Your task to perform on an android device: Go to CNN.com Image 0: 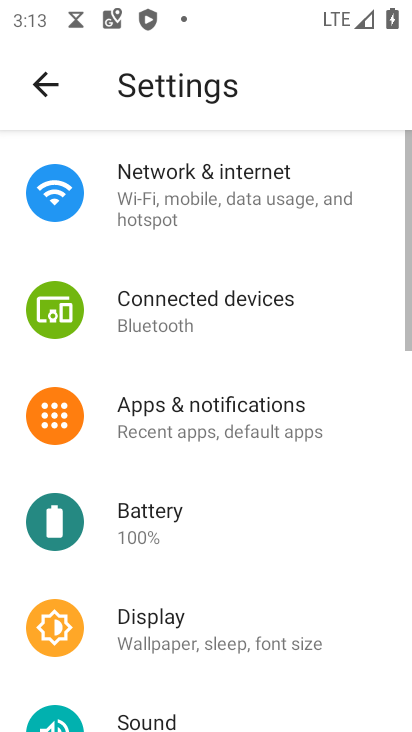
Step 0: press home button
Your task to perform on an android device: Go to CNN.com Image 1: 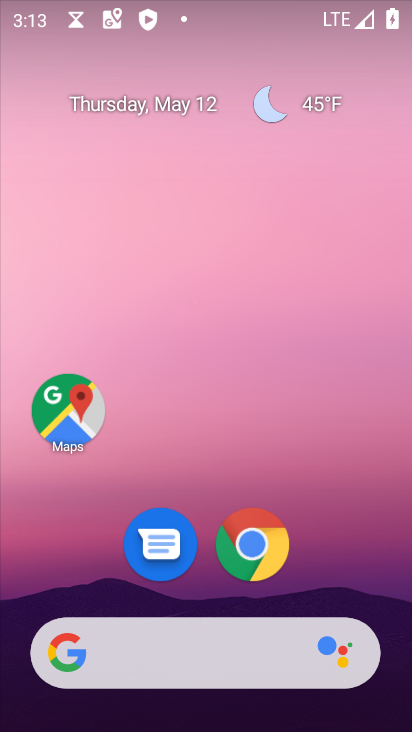
Step 1: click (263, 543)
Your task to perform on an android device: Go to CNN.com Image 2: 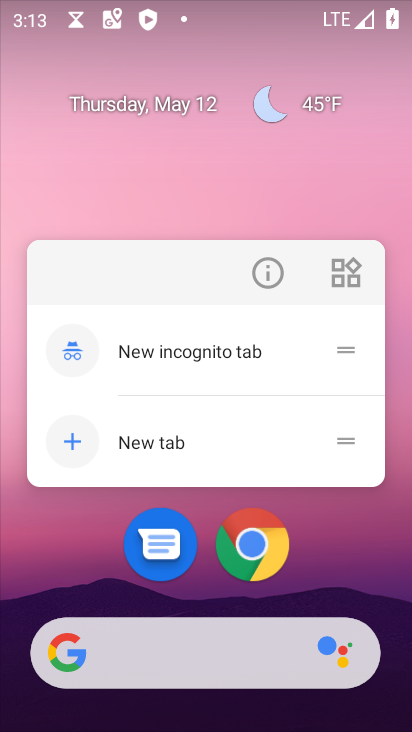
Step 2: click (262, 543)
Your task to perform on an android device: Go to CNN.com Image 3: 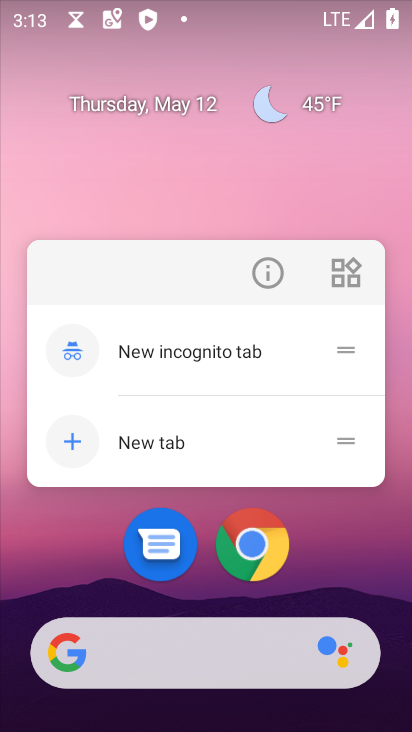
Step 3: click (262, 543)
Your task to perform on an android device: Go to CNN.com Image 4: 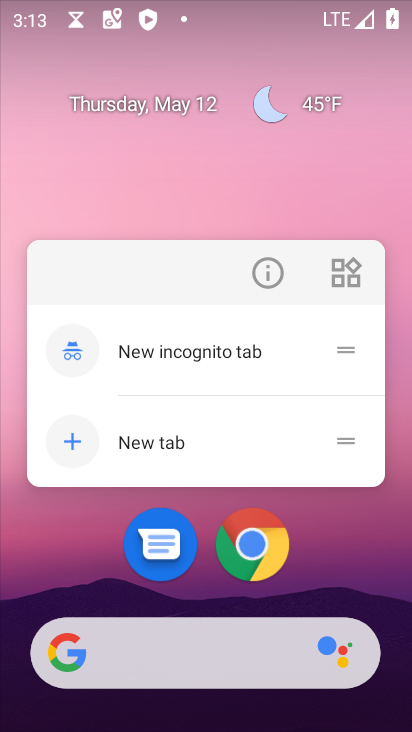
Step 4: click (262, 543)
Your task to perform on an android device: Go to CNN.com Image 5: 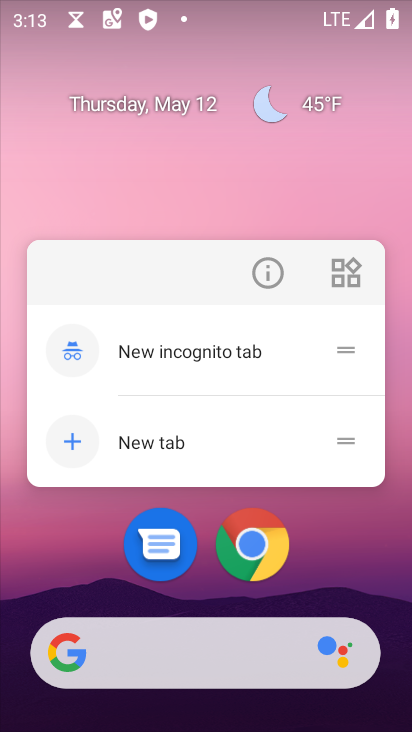
Step 5: click (255, 545)
Your task to perform on an android device: Go to CNN.com Image 6: 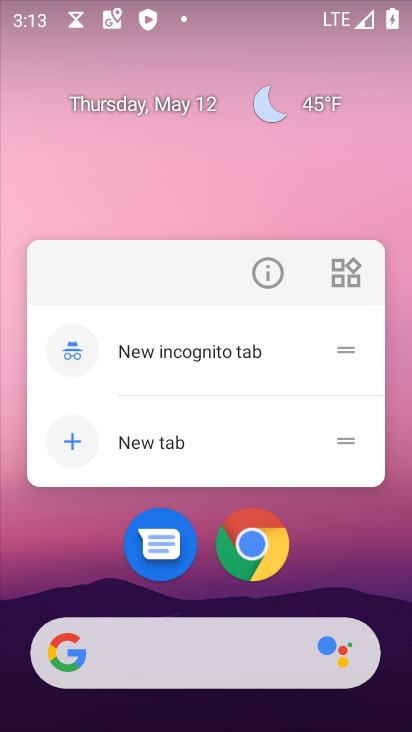
Step 6: click (252, 542)
Your task to perform on an android device: Go to CNN.com Image 7: 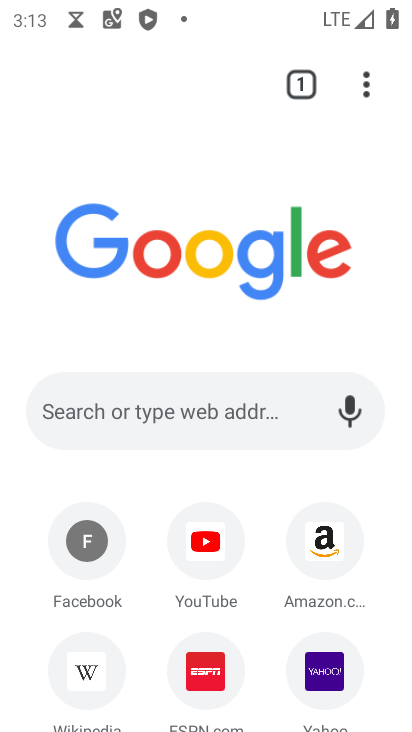
Step 7: click (217, 421)
Your task to perform on an android device: Go to CNN.com Image 8: 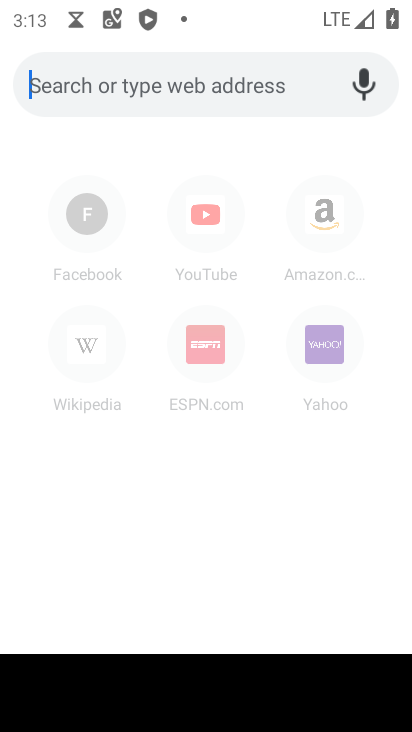
Step 8: type "CNN.com"
Your task to perform on an android device: Go to CNN.com Image 9: 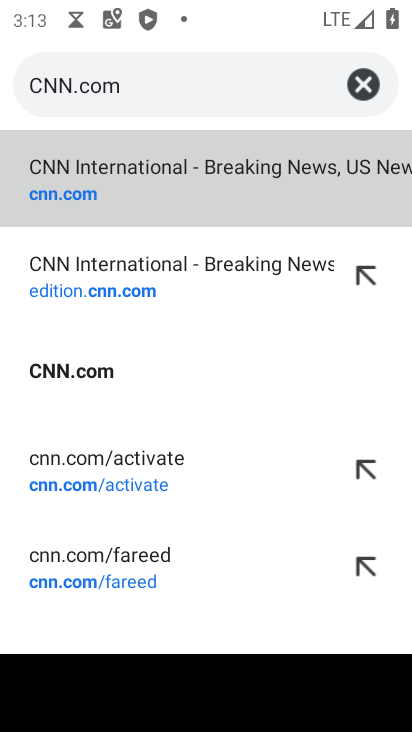
Step 9: click (115, 201)
Your task to perform on an android device: Go to CNN.com Image 10: 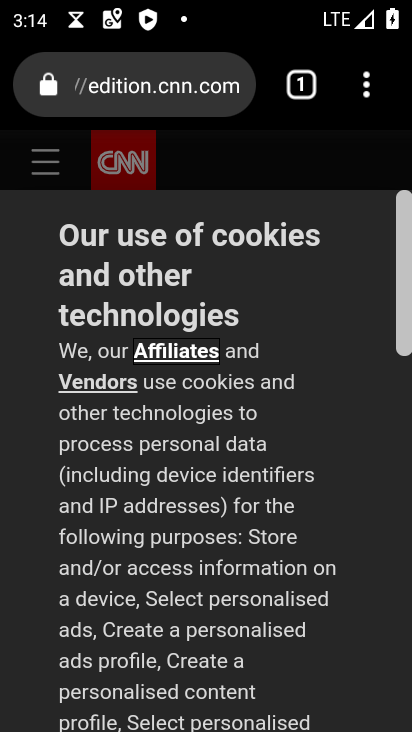
Step 10: task complete